Your task to perform on an android device: change alarm snooze length Image 0: 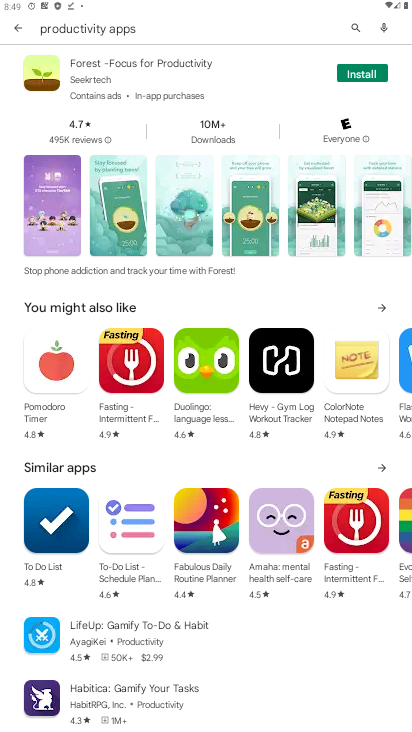
Step 0: press home button
Your task to perform on an android device: change alarm snooze length Image 1: 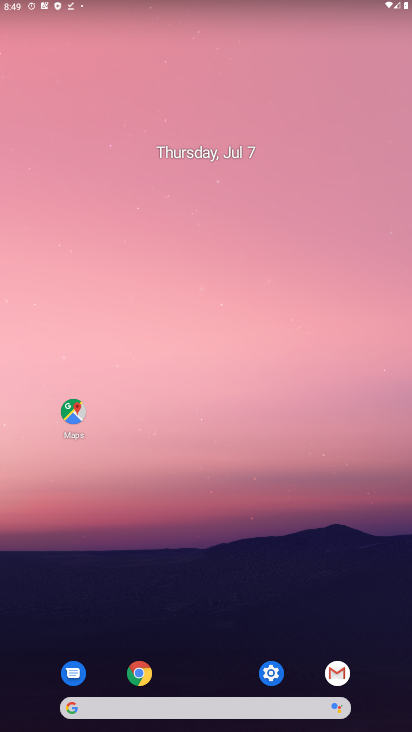
Step 1: drag from (211, 723) to (227, 222)
Your task to perform on an android device: change alarm snooze length Image 2: 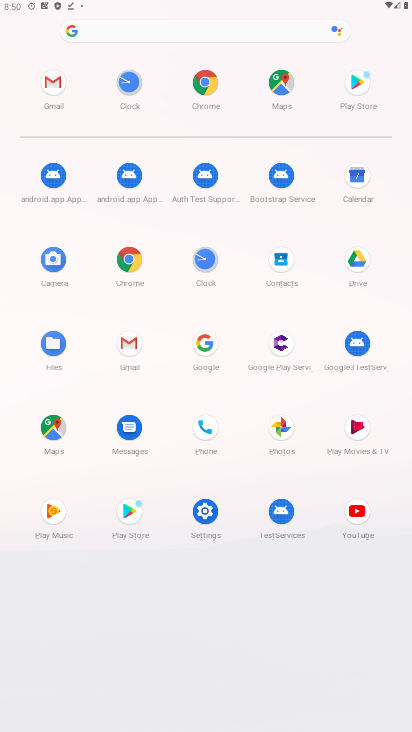
Step 2: click (214, 257)
Your task to perform on an android device: change alarm snooze length Image 3: 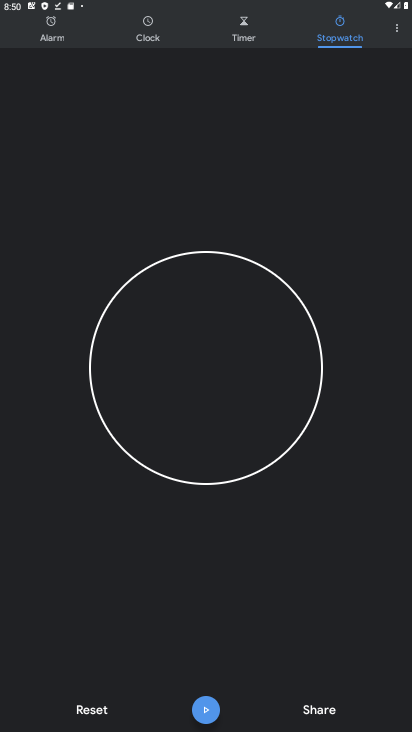
Step 3: click (394, 32)
Your task to perform on an android device: change alarm snooze length Image 4: 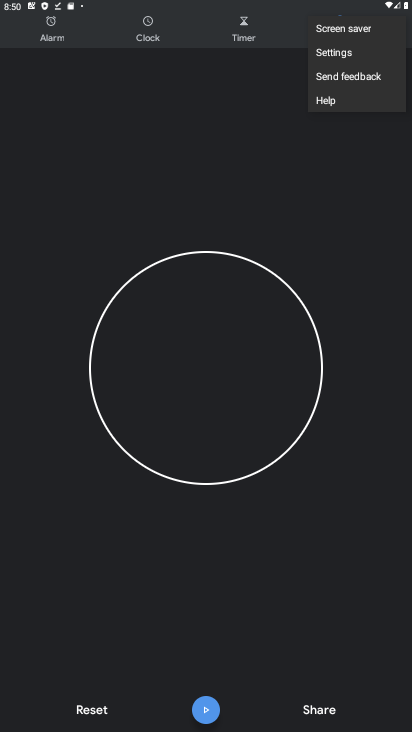
Step 4: click (338, 52)
Your task to perform on an android device: change alarm snooze length Image 5: 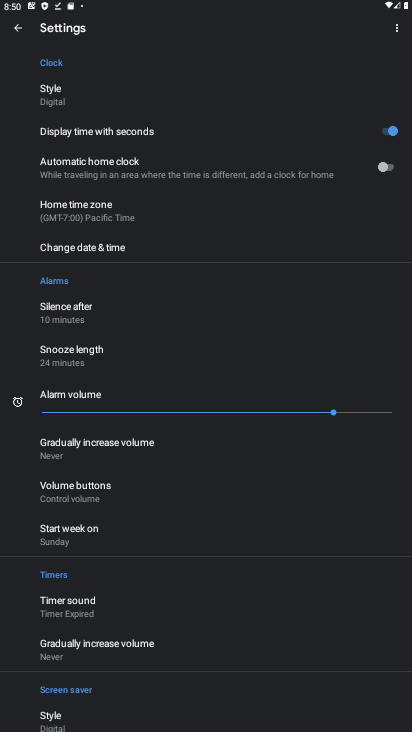
Step 5: click (112, 358)
Your task to perform on an android device: change alarm snooze length Image 6: 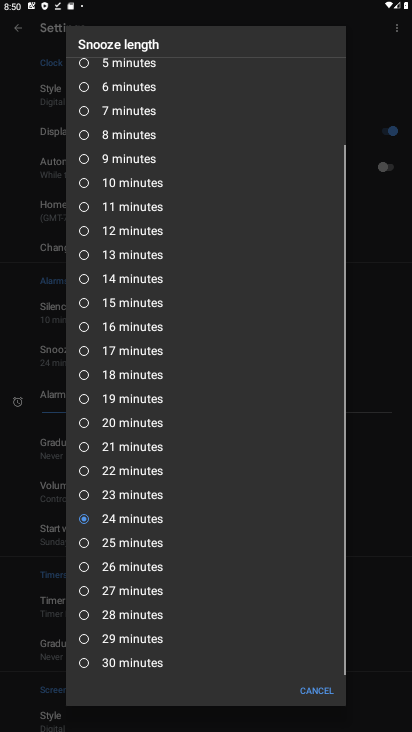
Step 6: click (151, 413)
Your task to perform on an android device: change alarm snooze length Image 7: 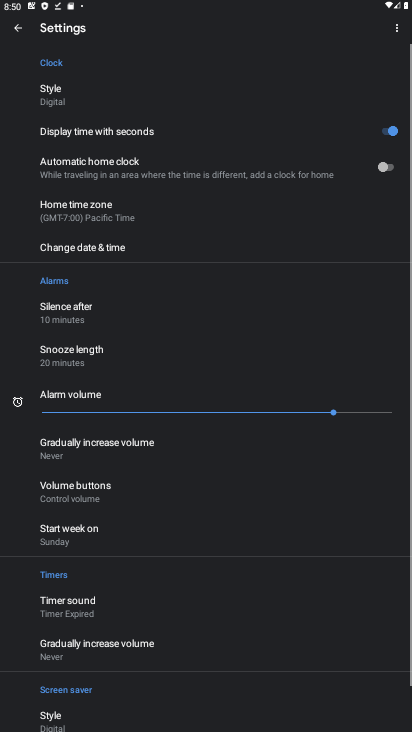
Step 7: click (118, 356)
Your task to perform on an android device: change alarm snooze length Image 8: 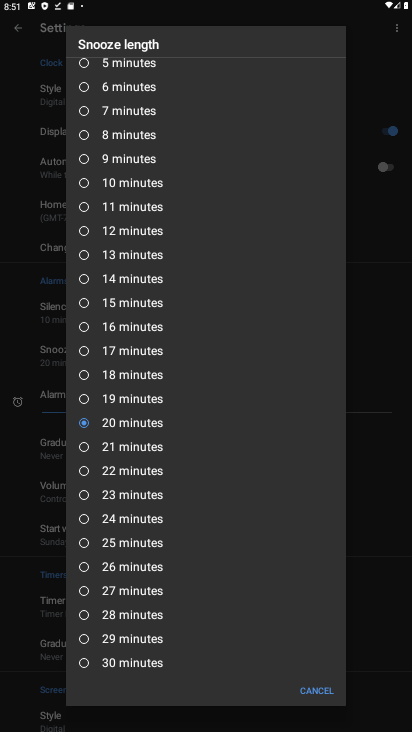
Step 8: task complete